Your task to perform on an android device: What's the weather? Image 0: 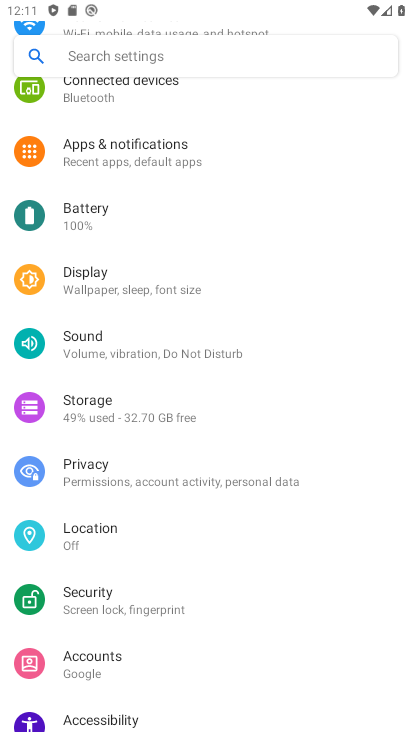
Step 0: press home button
Your task to perform on an android device: What's the weather? Image 1: 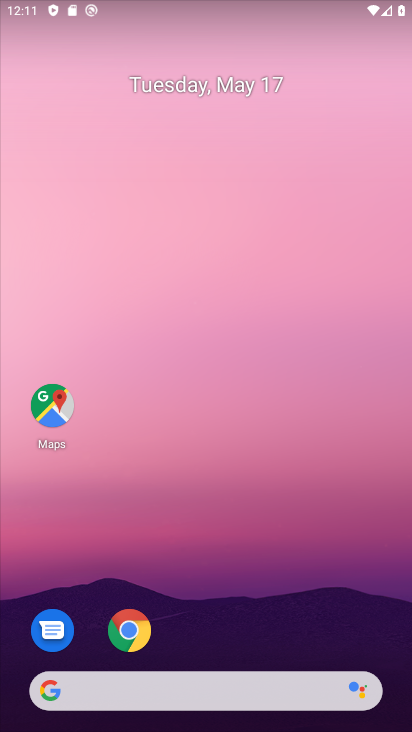
Step 1: drag from (1, 341) to (343, 297)
Your task to perform on an android device: What's the weather? Image 2: 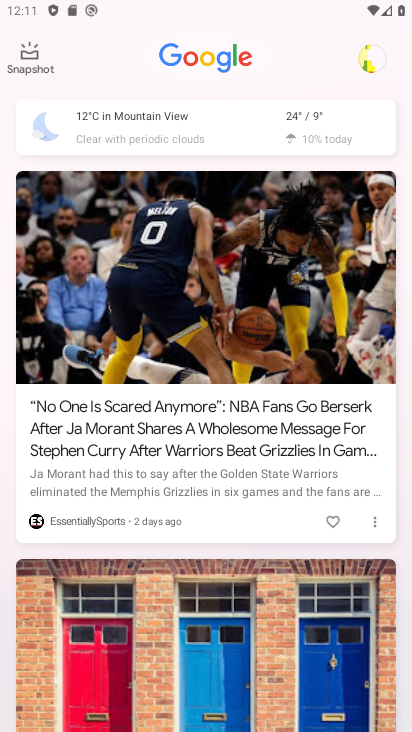
Step 2: click (249, 129)
Your task to perform on an android device: What's the weather? Image 3: 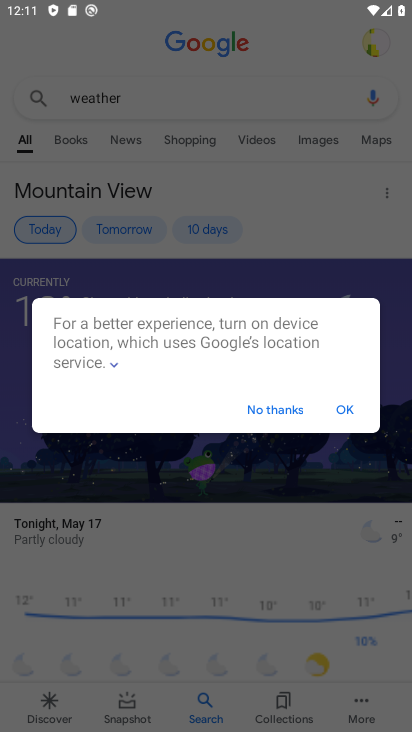
Step 3: click (353, 417)
Your task to perform on an android device: What's the weather? Image 4: 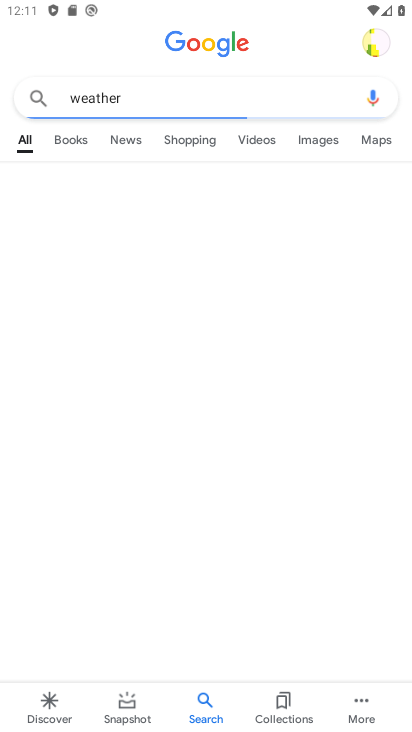
Step 4: drag from (212, 575) to (268, 228)
Your task to perform on an android device: What's the weather? Image 5: 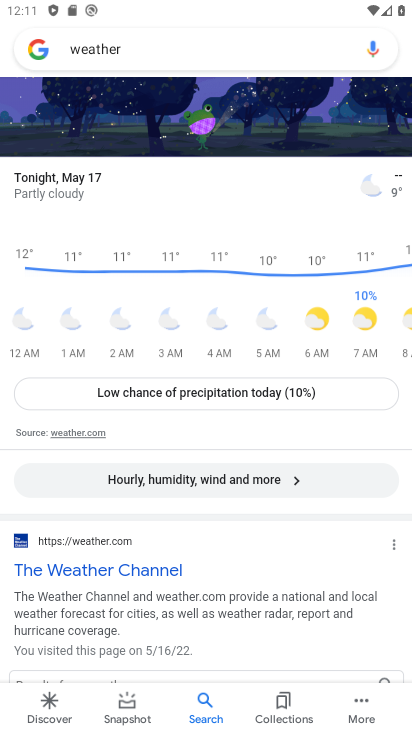
Step 5: click (119, 587)
Your task to perform on an android device: What's the weather? Image 6: 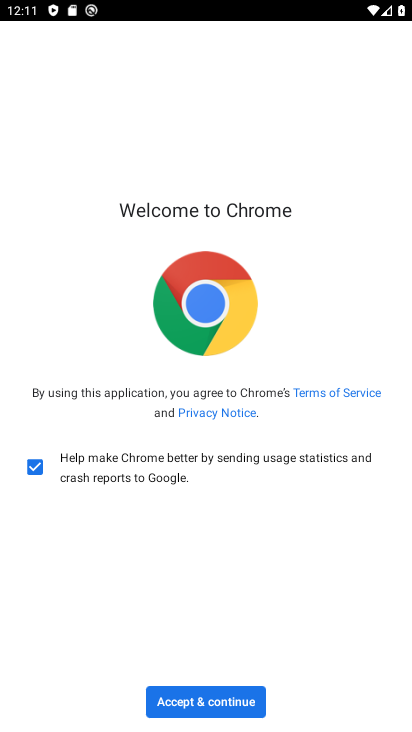
Step 6: click (224, 707)
Your task to perform on an android device: What's the weather? Image 7: 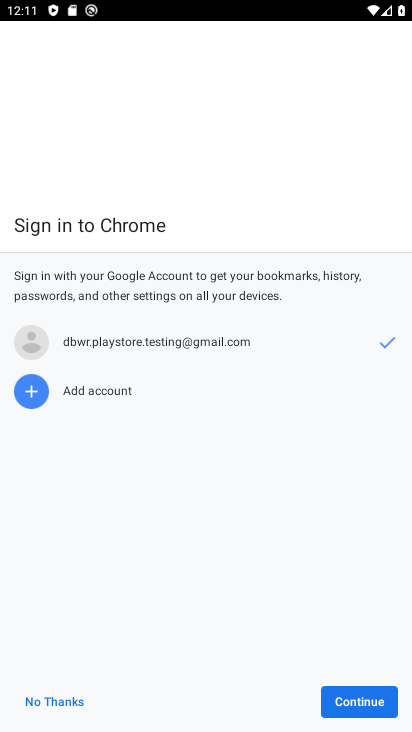
Step 7: click (394, 706)
Your task to perform on an android device: What's the weather? Image 8: 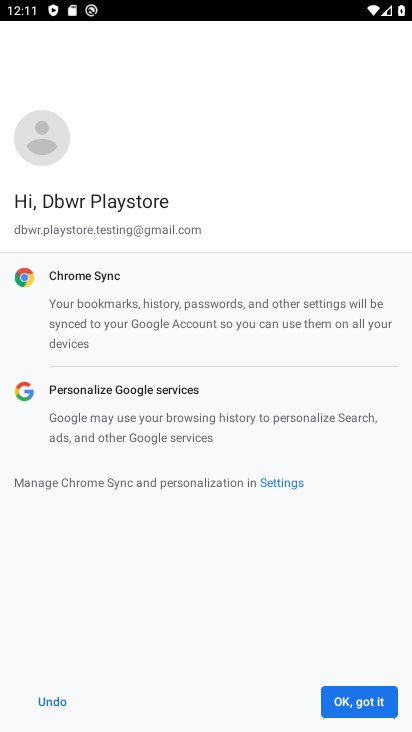
Step 8: click (393, 705)
Your task to perform on an android device: What's the weather? Image 9: 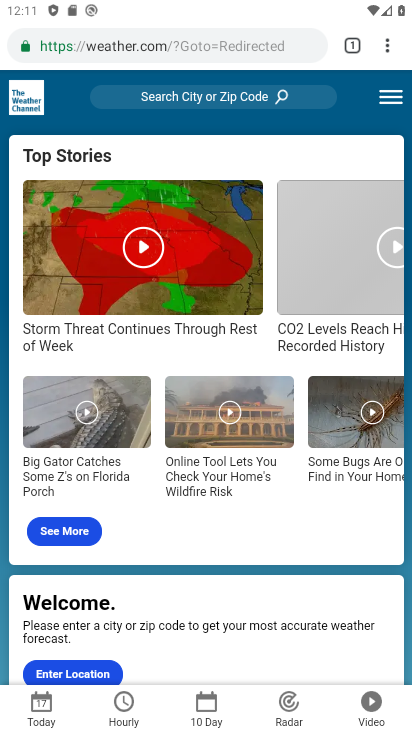
Step 9: drag from (307, 259) to (278, 638)
Your task to perform on an android device: What's the weather? Image 10: 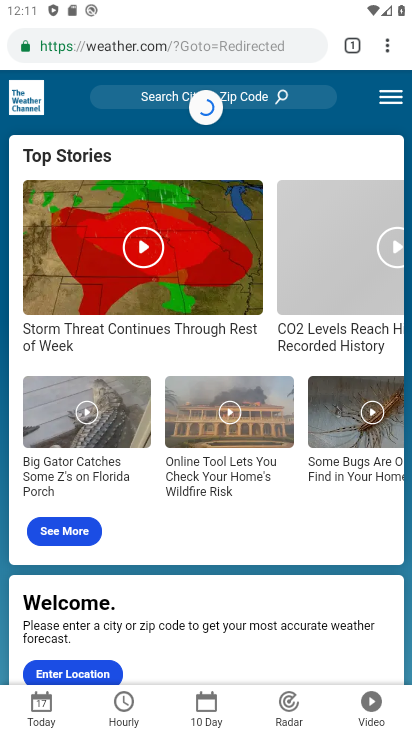
Step 10: drag from (108, 651) to (236, 173)
Your task to perform on an android device: What's the weather? Image 11: 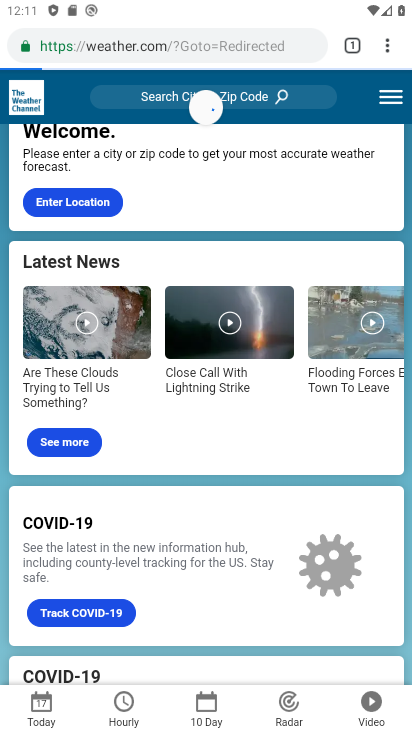
Step 11: click (203, 711)
Your task to perform on an android device: What's the weather? Image 12: 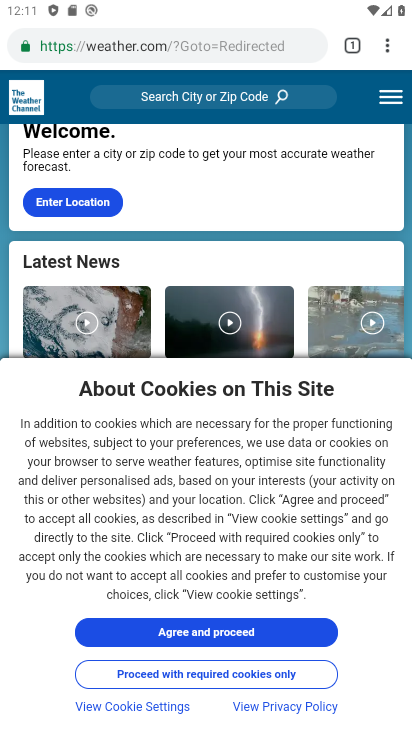
Step 12: click (220, 639)
Your task to perform on an android device: What's the weather? Image 13: 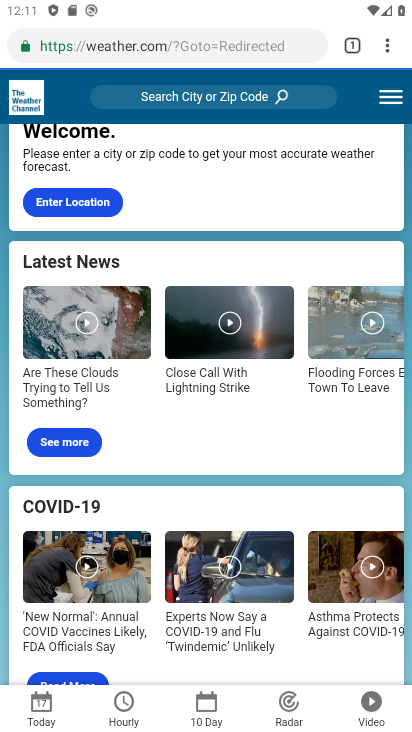
Step 13: click (221, 697)
Your task to perform on an android device: What's the weather? Image 14: 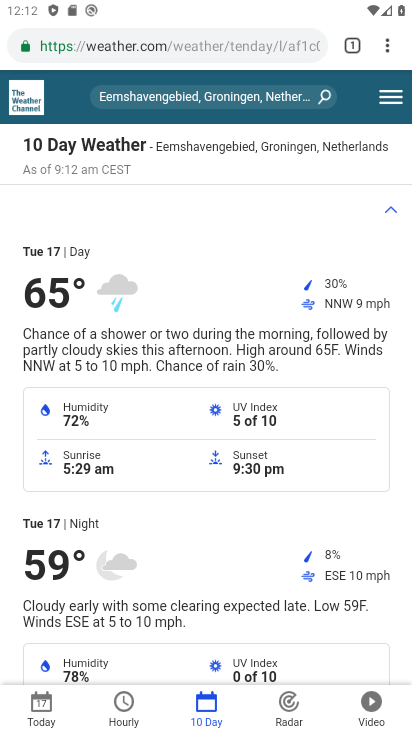
Step 14: task complete